Your task to perform on an android device: change the clock display to show seconds Image 0: 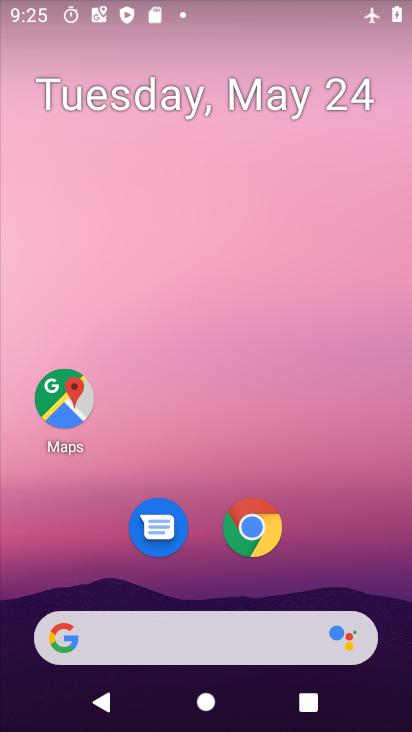
Step 0: drag from (380, 695) to (311, 276)
Your task to perform on an android device: change the clock display to show seconds Image 1: 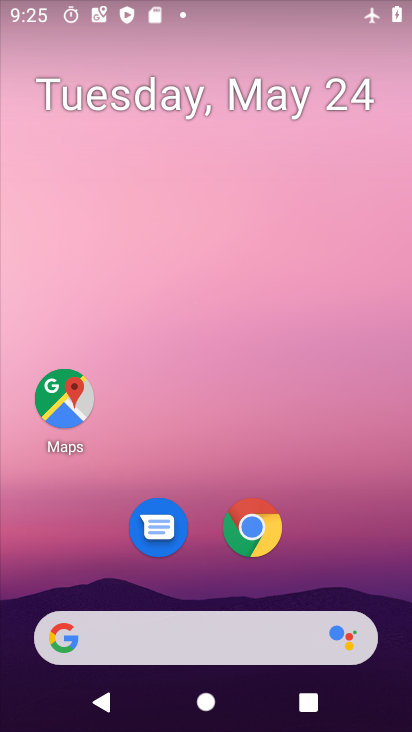
Step 1: drag from (394, 702) to (325, 245)
Your task to perform on an android device: change the clock display to show seconds Image 2: 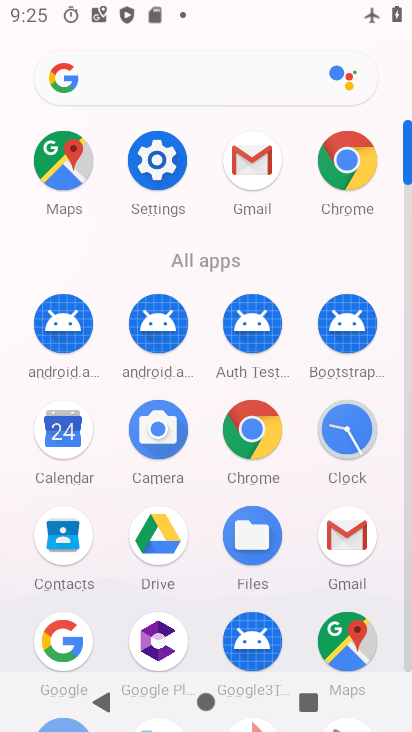
Step 2: click (348, 422)
Your task to perform on an android device: change the clock display to show seconds Image 3: 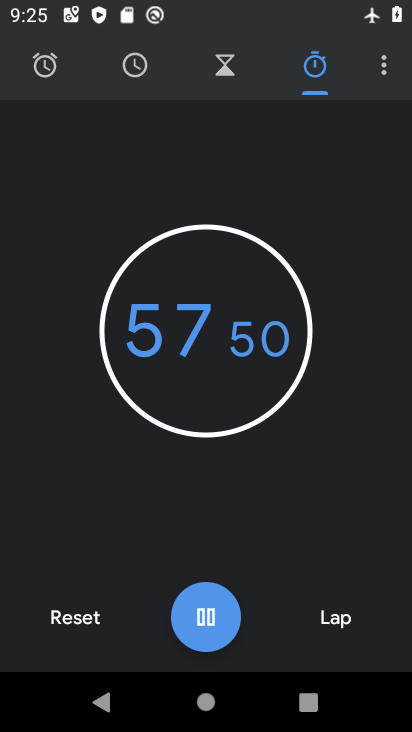
Step 3: click (379, 62)
Your task to perform on an android device: change the clock display to show seconds Image 4: 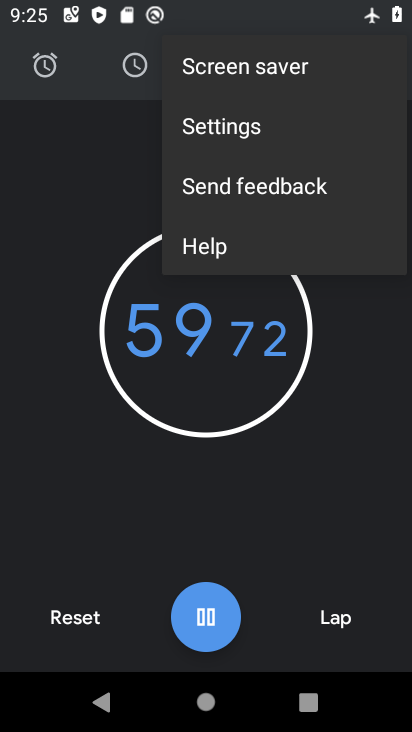
Step 4: click (248, 130)
Your task to perform on an android device: change the clock display to show seconds Image 5: 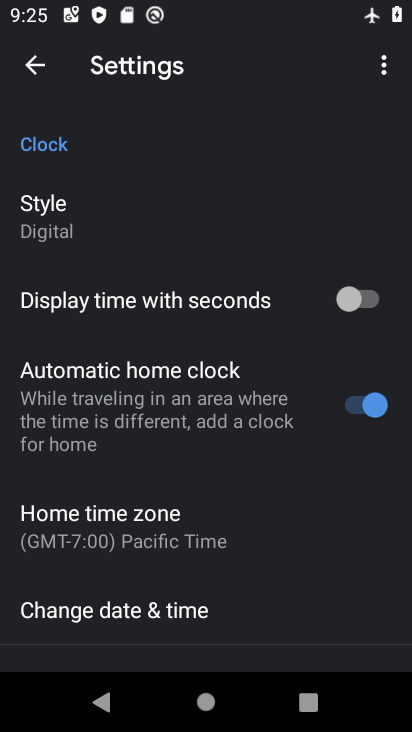
Step 5: click (361, 295)
Your task to perform on an android device: change the clock display to show seconds Image 6: 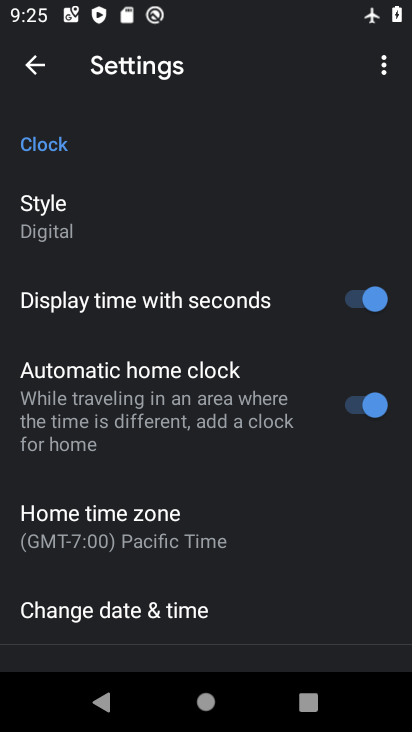
Step 6: task complete